Your task to perform on an android device: Open wifi settings Image 0: 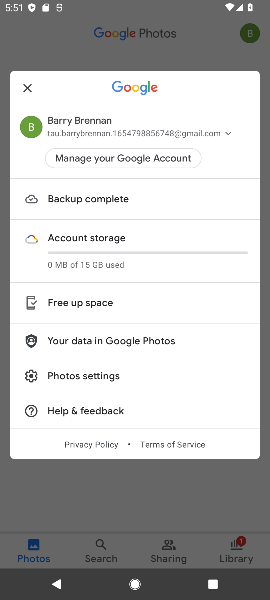
Step 0: press home button
Your task to perform on an android device: Open wifi settings Image 1: 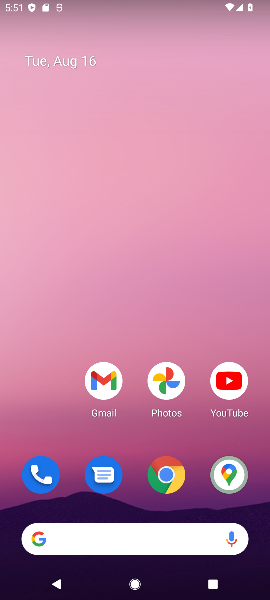
Step 1: drag from (249, 532) to (73, 6)
Your task to perform on an android device: Open wifi settings Image 2: 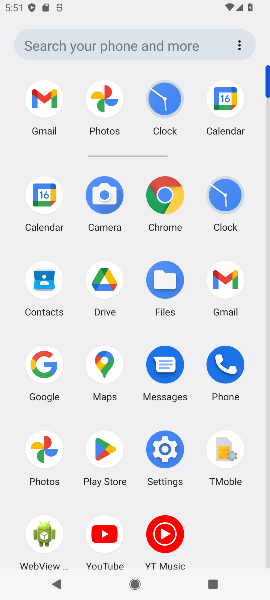
Step 2: click (168, 445)
Your task to perform on an android device: Open wifi settings Image 3: 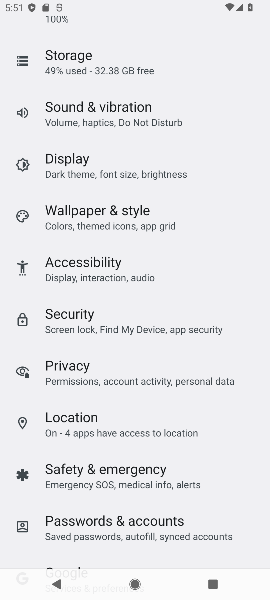
Step 3: drag from (128, 97) to (194, 548)
Your task to perform on an android device: Open wifi settings Image 4: 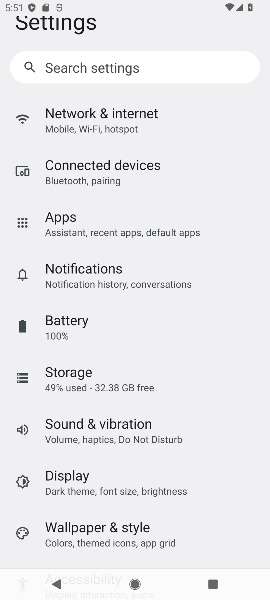
Step 4: drag from (137, 154) to (132, 472)
Your task to perform on an android device: Open wifi settings Image 5: 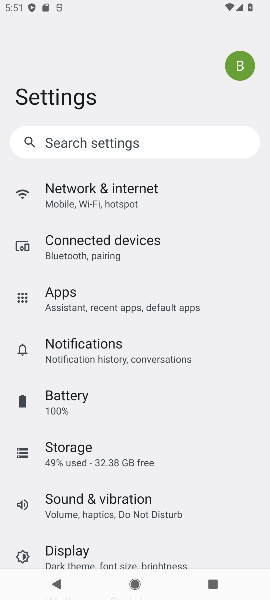
Step 5: click (88, 201)
Your task to perform on an android device: Open wifi settings Image 6: 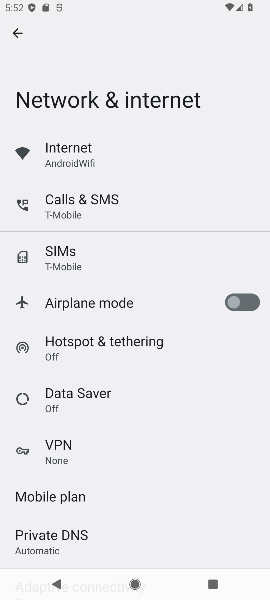
Step 6: task complete